Your task to perform on an android device: turn on javascript in the chrome app Image 0: 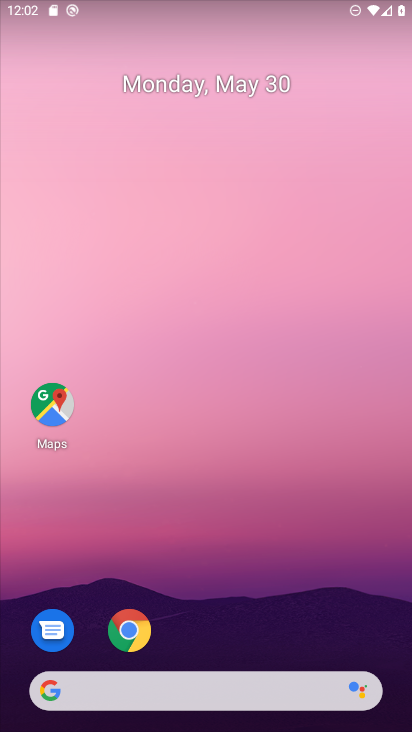
Step 0: drag from (241, 696) to (184, 180)
Your task to perform on an android device: turn on javascript in the chrome app Image 1: 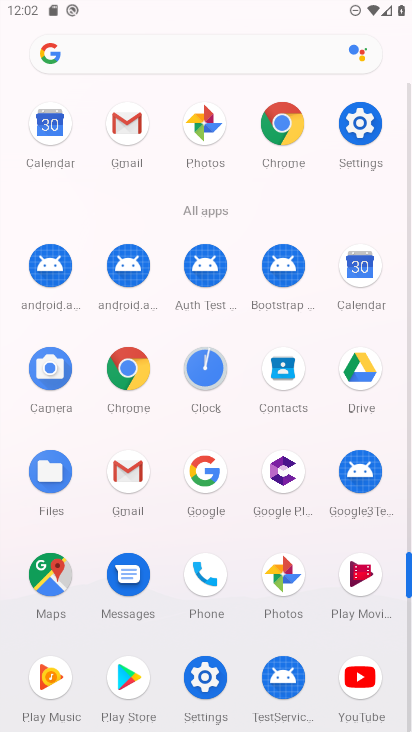
Step 1: click (280, 136)
Your task to perform on an android device: turn on javascript in the chrome app Image 2: 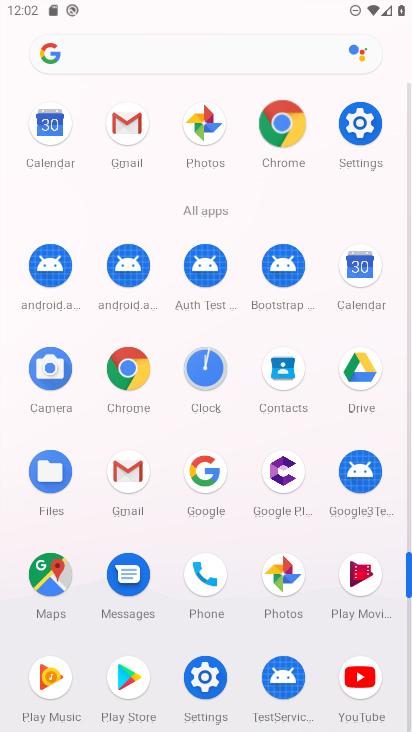
Step 2: click (280, 136)
Your task to perform on an android device: turn on javascript in the chrome app Image 3: 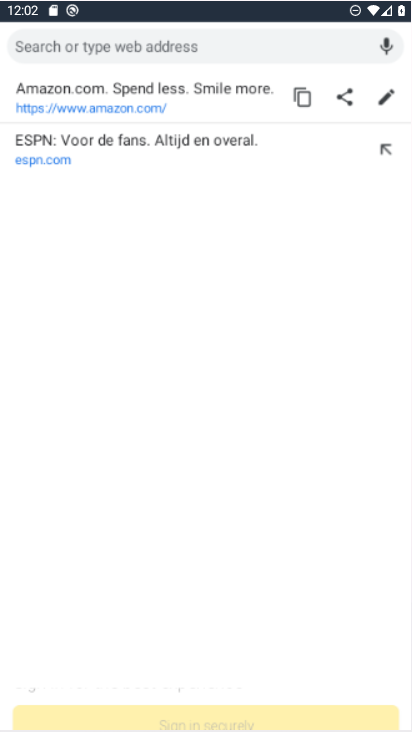
Step 3: click (280, 135)
Your task to perform on an android device: turn on javascript in the chrome app Image 4: 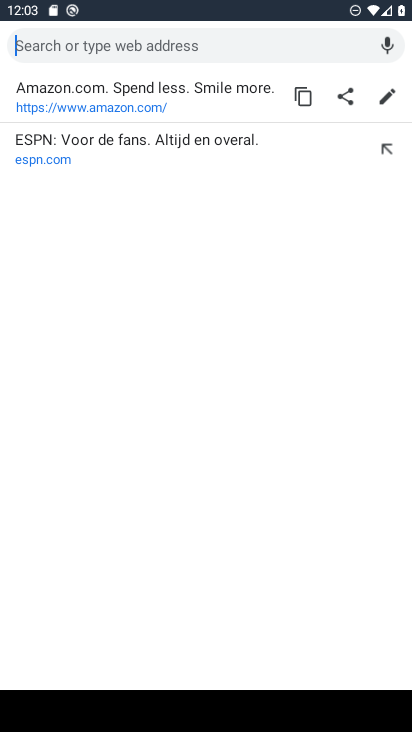
Step 4: press back button
Your task to perform on an android device: turn on javascript in the chrome app Image 5: 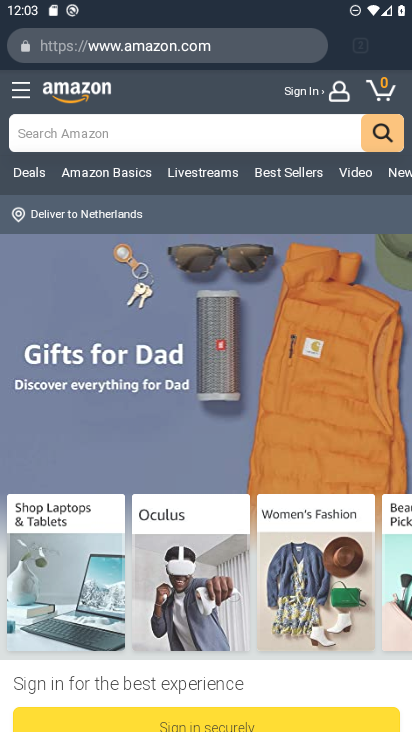
Step 5: press home button
Your task to perform on an android device: turn on javascript in the chrome app Image 6: 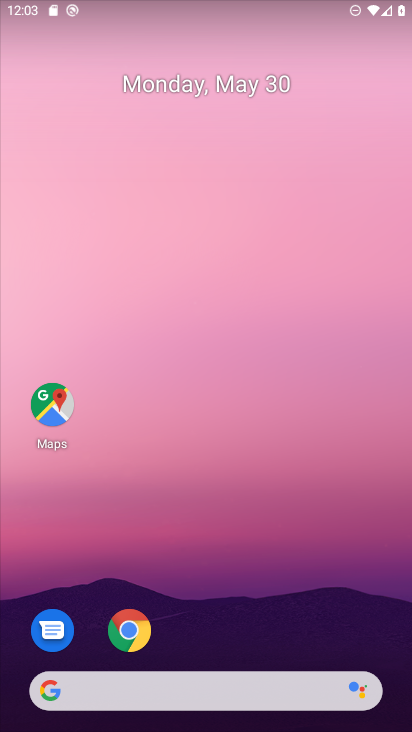
Step 6: drag from (201, 581) to (186, 50)
Your task to perform on an android device: turn on javascript in the chrome app Image 7: 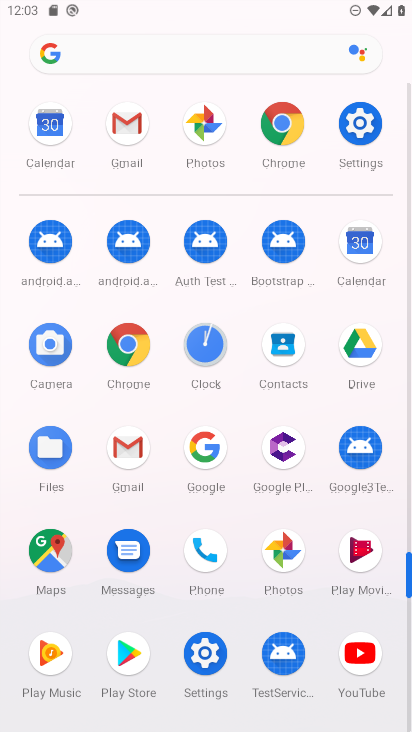
Step 7: click (285, 136)
Your task to perform on an android device: turn on javascript in the chrome app Image 8: 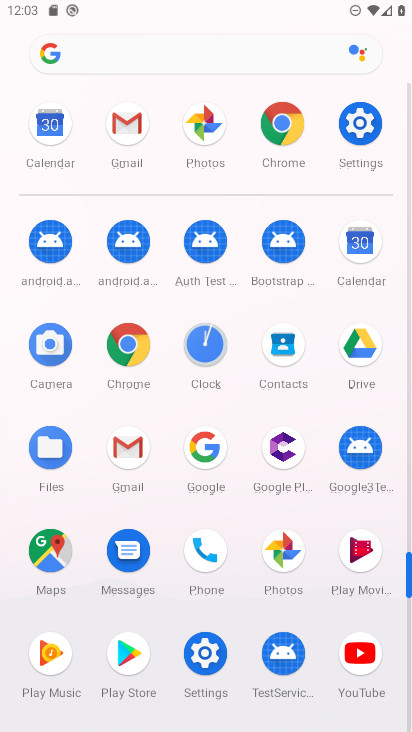
Step 8: click (279, 120)
Your task to perform on an android device: turn on javascript in the chrome app Image 9: 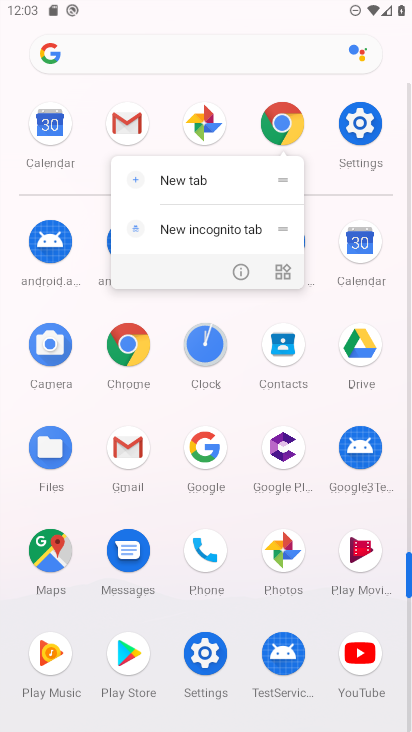
Step 9: click (280, 104)
Your task to perform on an android device: turn on javascript in the chrome app Image 10: 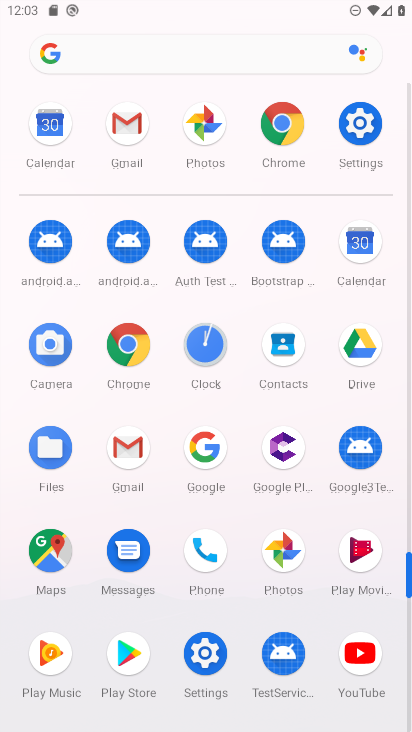
Step 10: click (283, 122)
Your task to perform on an android device: turn on javascript in the chrome app Image 11: 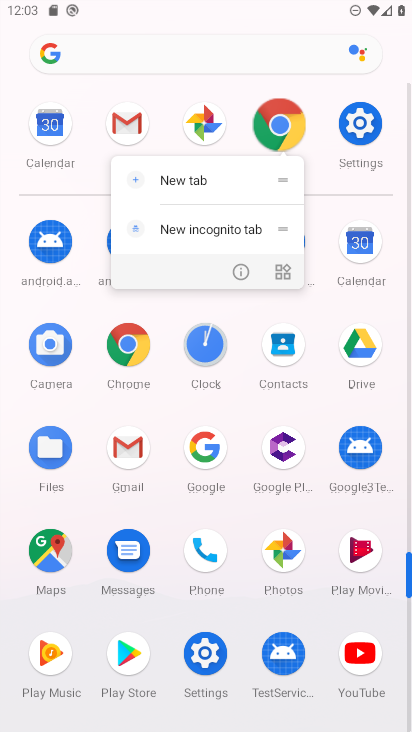
Step 11: click (279, 123)
Your task to perform on an android device: turn on javascript in the chrome app Image 12: 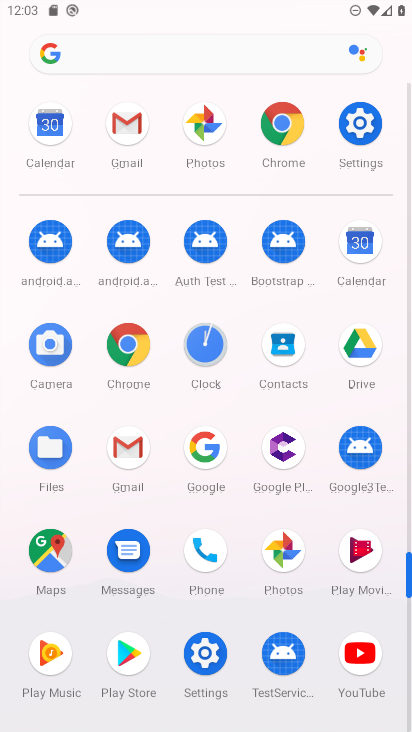
Step 12: click (279, 122)
Your task to perform on an android device: turn on javascript in the chrome app Image 13: 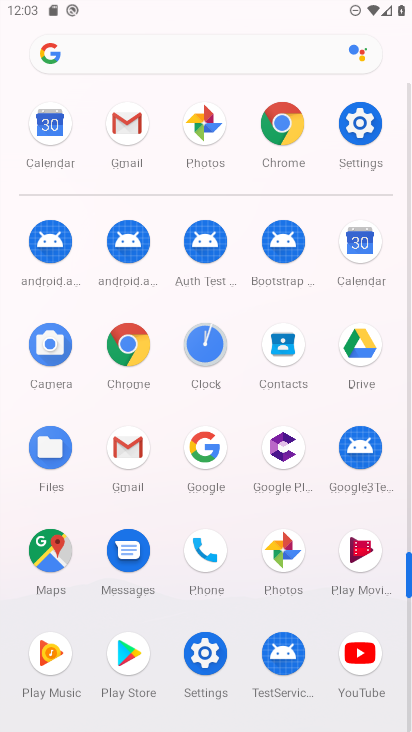
Step 13: click (279, 122)
Your task to perform on an android device: turn on javascript in the chrome app Image 14: 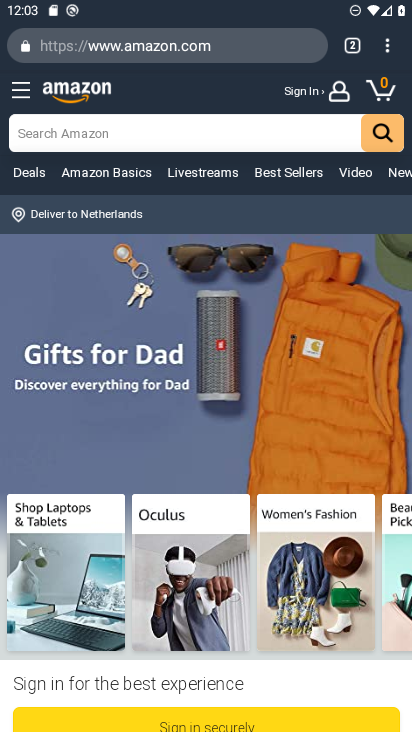
Step 14: drag from (388, 50) to (228, 538)
Your task to perform on an android device: turn on javascript in the chrome app Image 15: 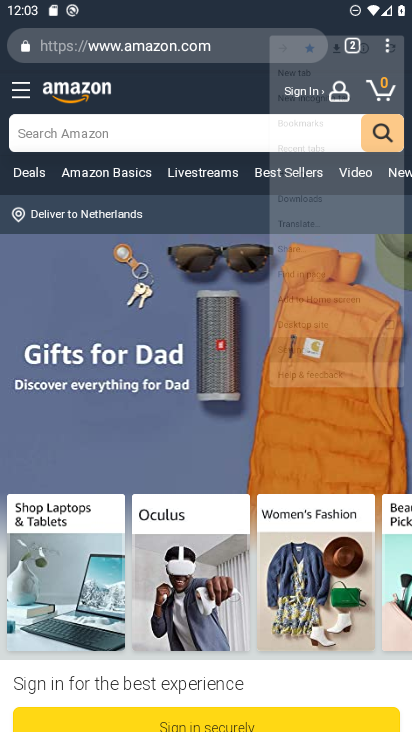
Step 15: click (228, 538)
Your task to perform on an android device: turn on javascript in the chrome app Image 16: 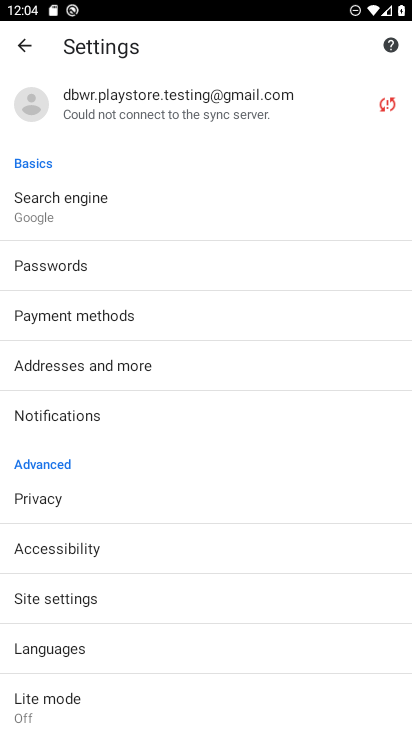
Step 16: click (45, 596)
Your task to perform on an android device: turn on javascript in the chrome app Image 17: 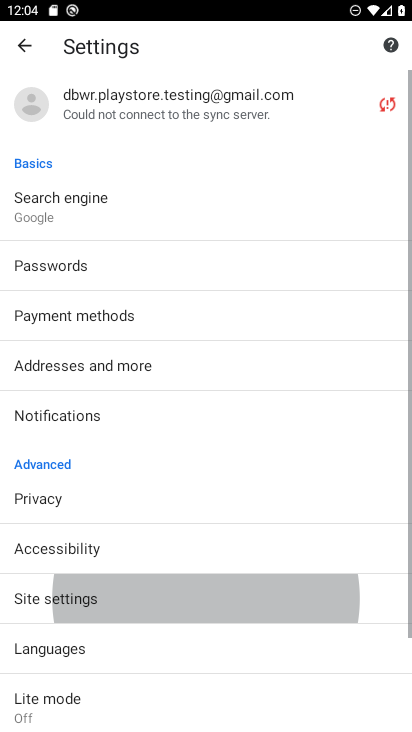
Step 17: click (50, 594)
Your task to perform on an android device: turn on javascript in the chrome app Image 18: 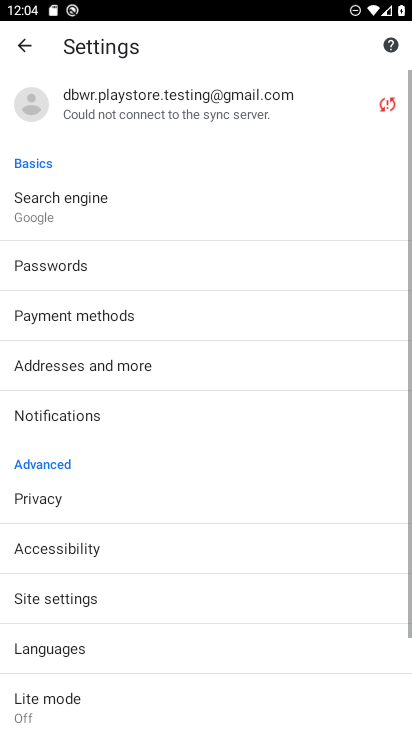
Step 18: click (49, 593)
Your task to perform on an android device: turn on javascript in the chrome app Image 19: 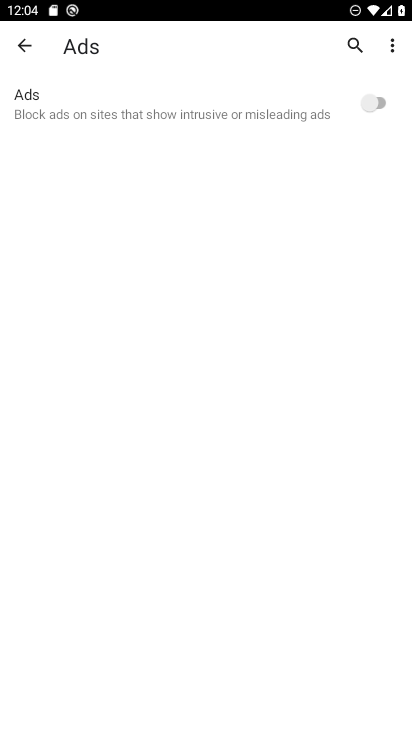
Step 19: click (12, 42)
Your task to perform on an android device: turn on javascript in the chrome app Image 20: 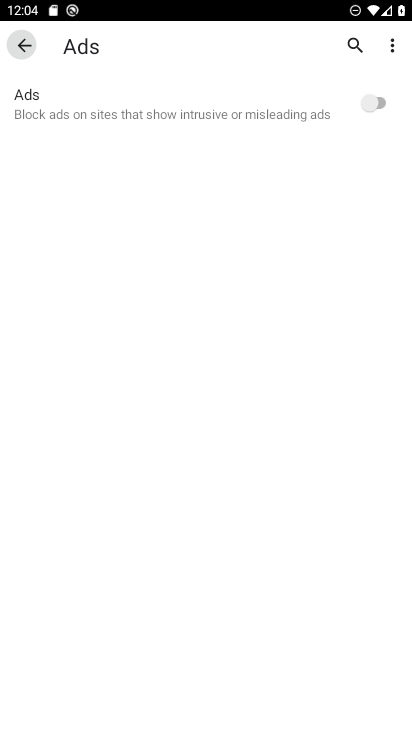
Step 20: click (12, 42)
Your task to perform on an android device: turn on javascript in the chrome app Image 21: 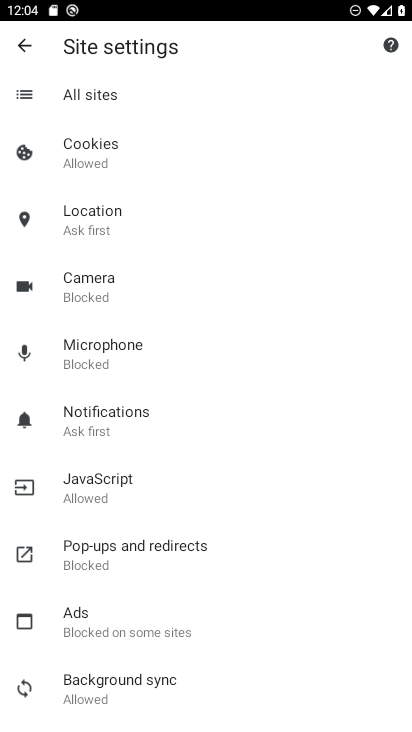
Step 21: click (99, 481)
Your task to perform on an android device: turn on javascript in the chrome app Image 22: 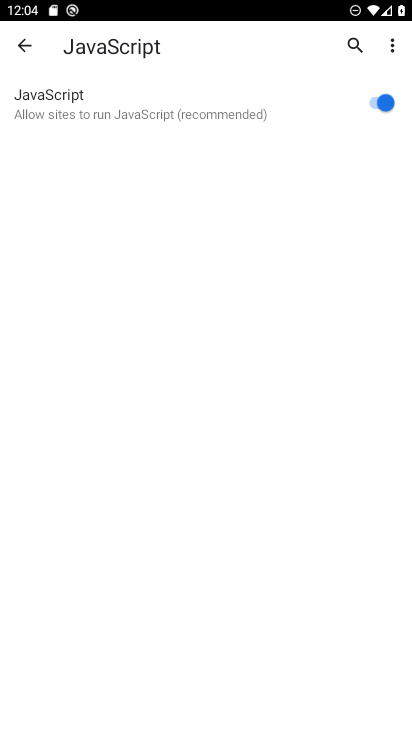
Step 22: task complete